Your task to perform on an android device: Open CNN.com Image 0: 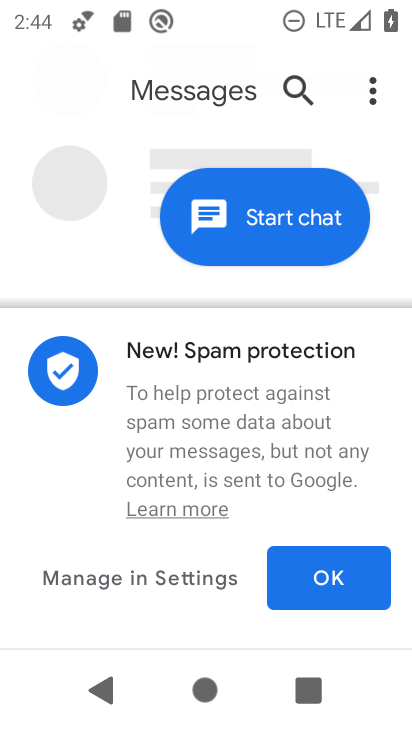
Step 0: press home button
Your task to perform on an android device: Open CNN.com Image 1: 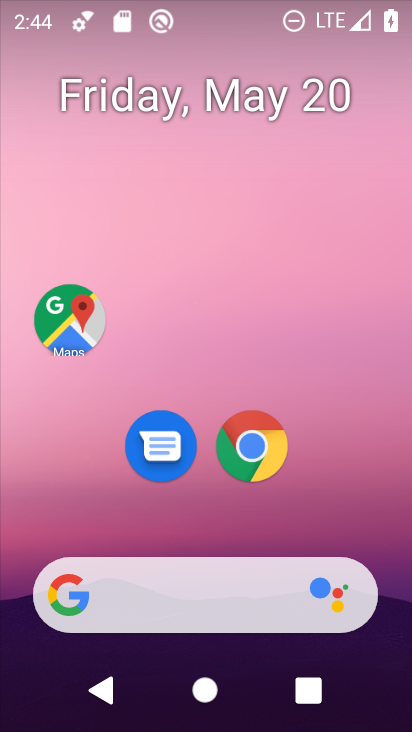
Step 1: click (251, 442)
Your task to perform on an android device: Open CNN.com Image 2: 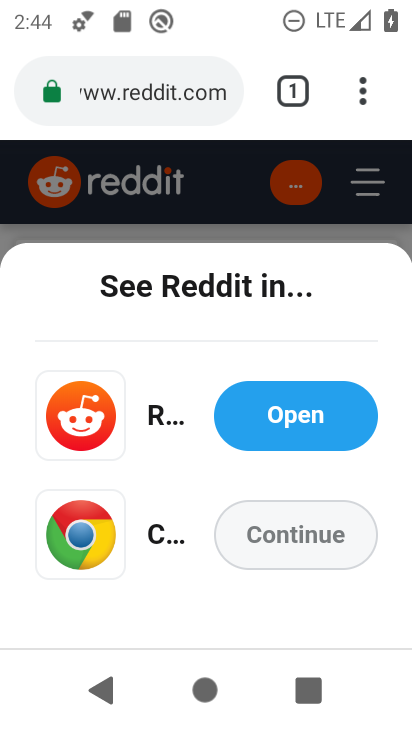
Step 2: click (103, 93)
Your task to perform on an android device: Open CNN.com Image 3: 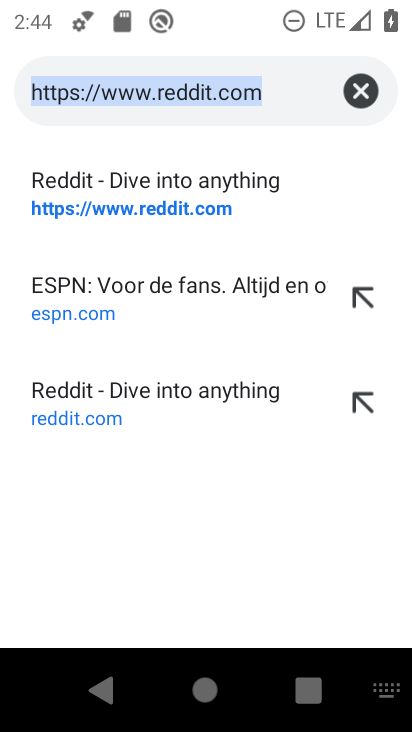
Step 3: click (353, 99)
Your task to perform on an android device: Open CNN.com Image 4: 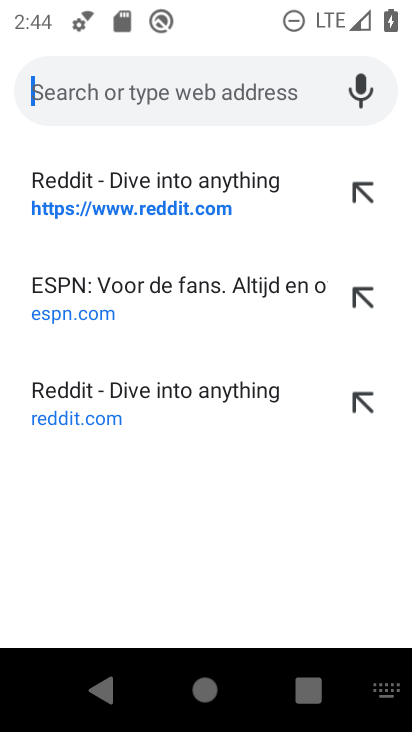
Step 4: type "cnn.com"
Your task to perform on an android device: Open CNN.com Image 5: 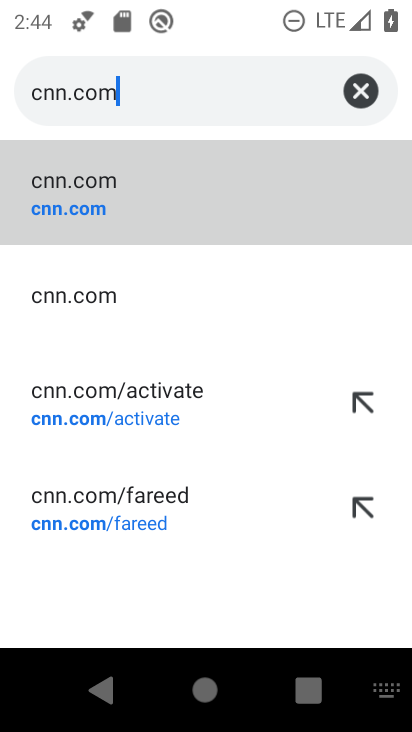
Step 5: click (60, 197)
Your task to perform on an android device: Open CNN.com Image 6: 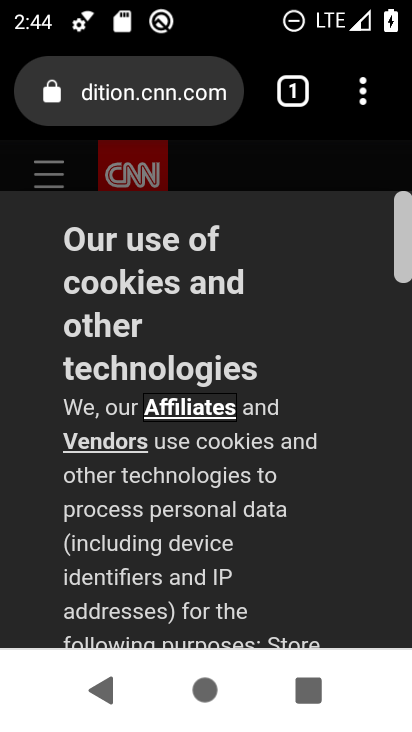
Step 6: task complete